Your task to perform on an android device: clear history in the chrome app Image 0: 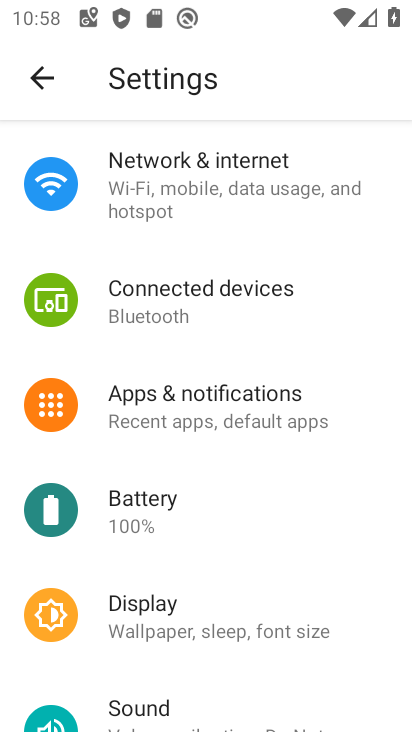
Step 0: press back button
Your task to perform on an android device: clear history in the chrome app Image 1: 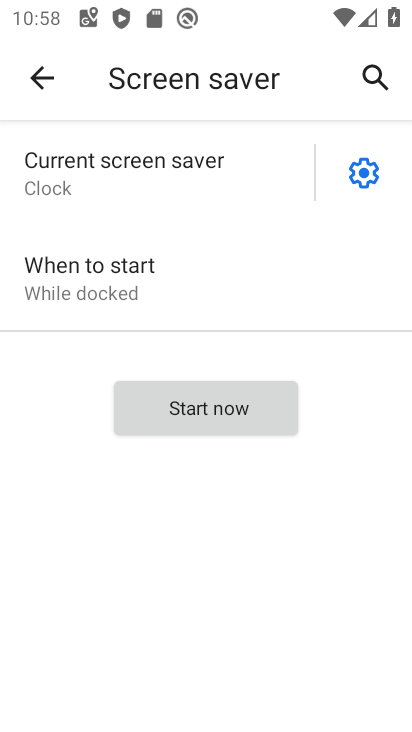
Step 1: press back button
Your task to perform on an android device: clear history in the chrome app Image 2: 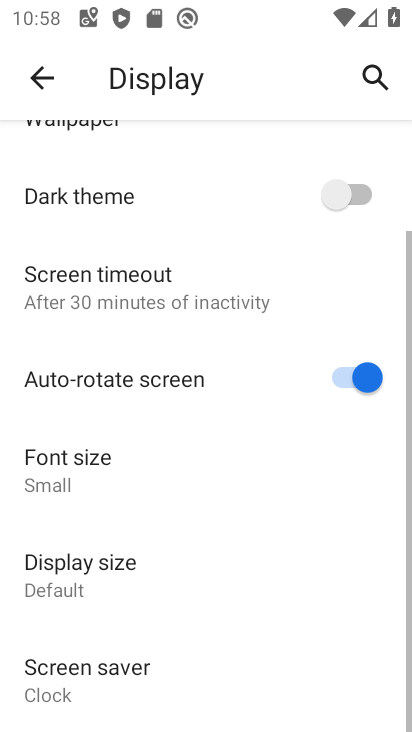
Step 2: press back button
Your task to perform on an android device: clear history in the chrome app Image 3: 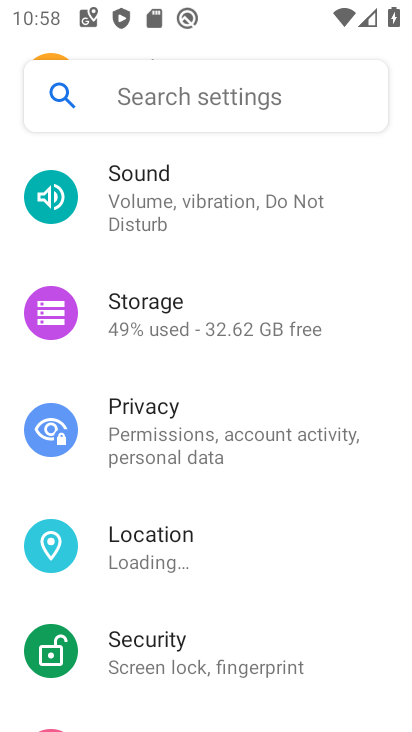
Step 3: press back button
Your task to perform on an android device: clear history in the chrome app Image 4: 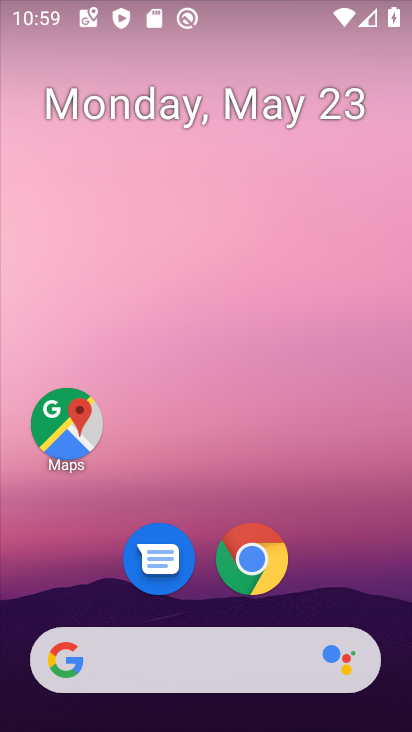
Step 4: click (251, 563)
Your task to perform on an android device: clear history in the chrome app Image 5: 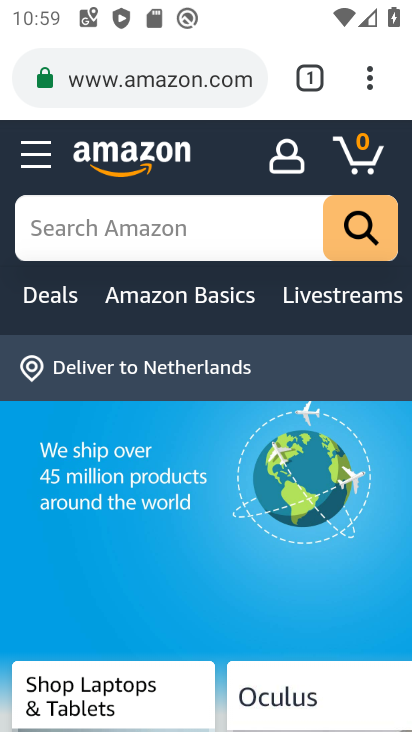
Step 5: click (368, 80)
Your task to perform on an android device: clear history in the chrome app Image 6: 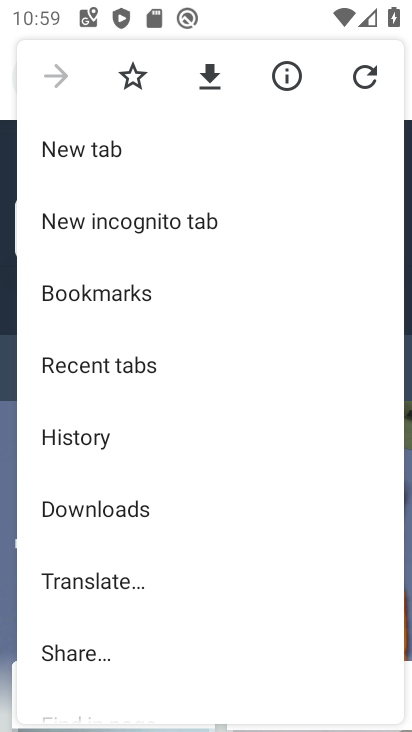
Step 6: click (100, 437)
Your task to perform on an android device: clear history in the chrome app Image 7: 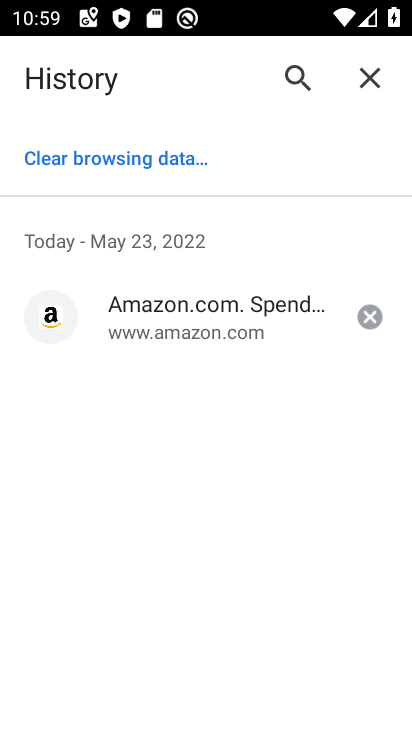
Step 7: click (152, 167)
Your task to perform on an android device: clear history in the chrome app Image 8: 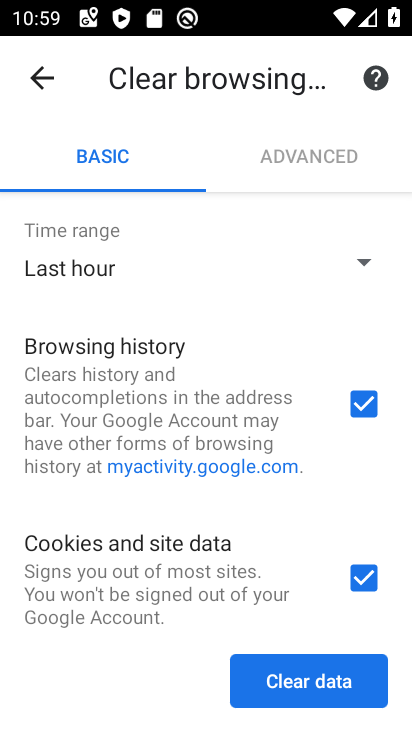
Step 8: click (314, 685)
Your task to perform on an android device: clear history in the chrome app Image 9: 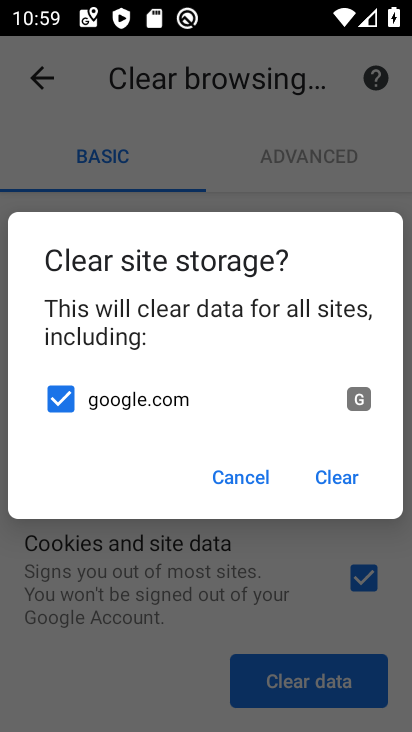
Step 9: click (363, 481)
Your task to perform on an android device: clear history in the chrome app Image 10: 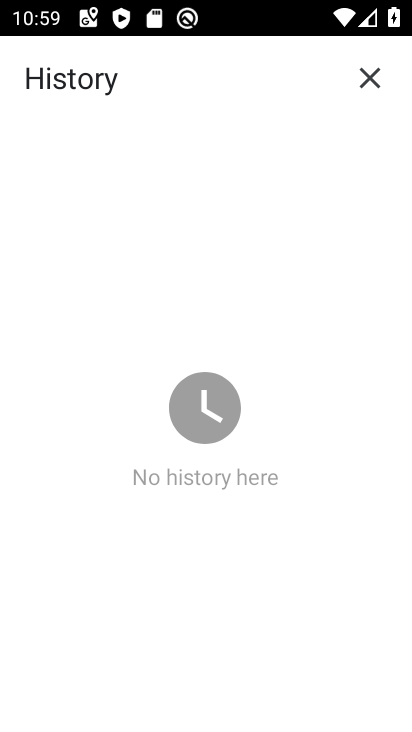
Step 10: task complete